Your task to perform on an android device: Go to privacy settings Image 0: 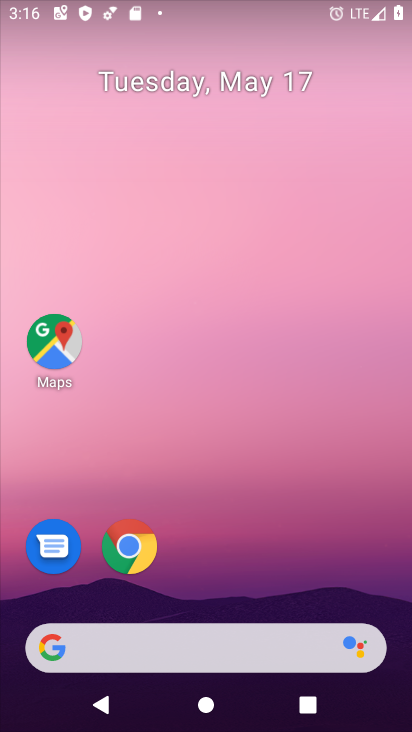
Step 0: press home button
Your task to perform on an android device: Go to privacy settings Image 1: 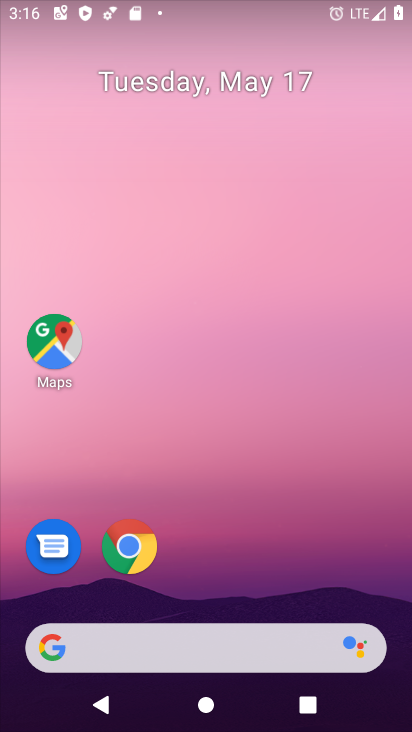
Step 1: drag from (267, 510) to (241, 29)
Your task to perform on an android device: Go to privacy settings Image 2: 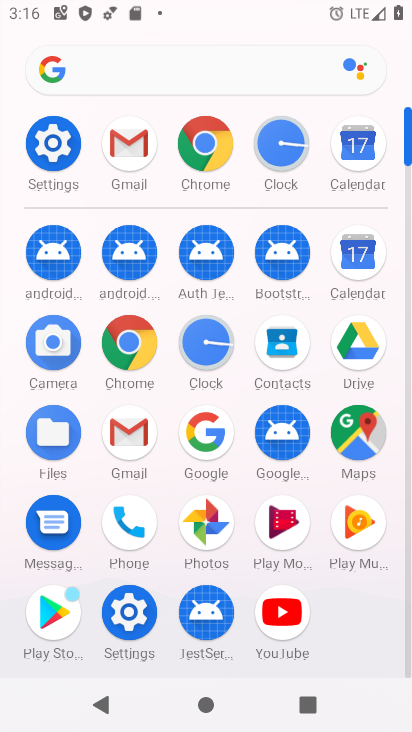
Step 2: click (34, 142)
Your task to perform on an android device: Go to privacy settings Image 3: 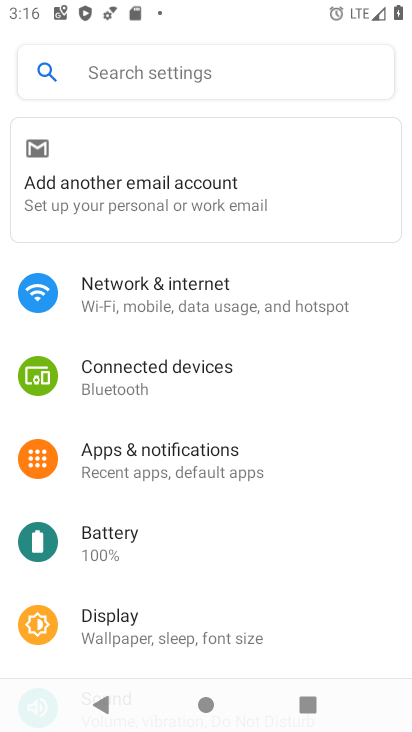
Step 3: drag from (83, 570) to (133, 131)
Your task to perform on an android device: Go to privacy settings Image 4: 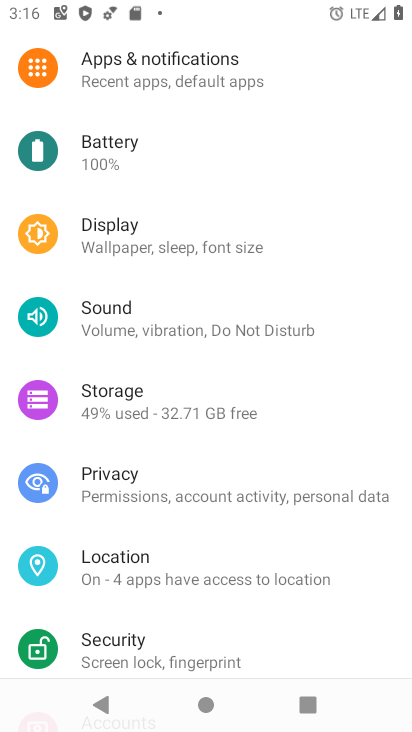
Step 4: click (124, 476)
Your task to perform on an android device: Go to privacy settings Image 5: 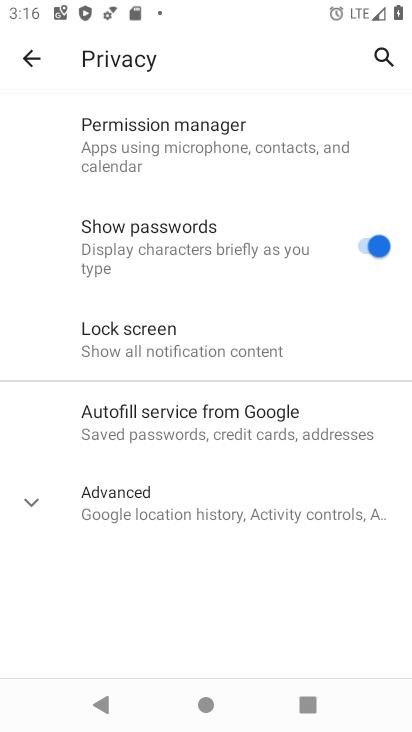
Step 5: task complete